Your task to perform on an android device: toggle improve location accuracy Image 0: 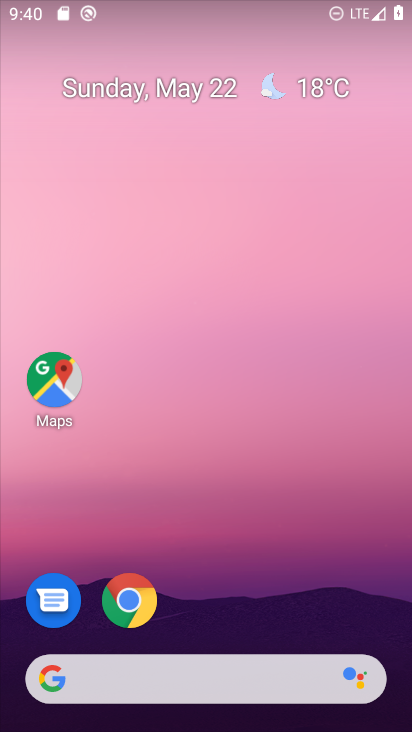
Step 0: drag from (360, 603) to (228, 39)
Your task to perform on an android device: toggle improve location accuracy Image 1: 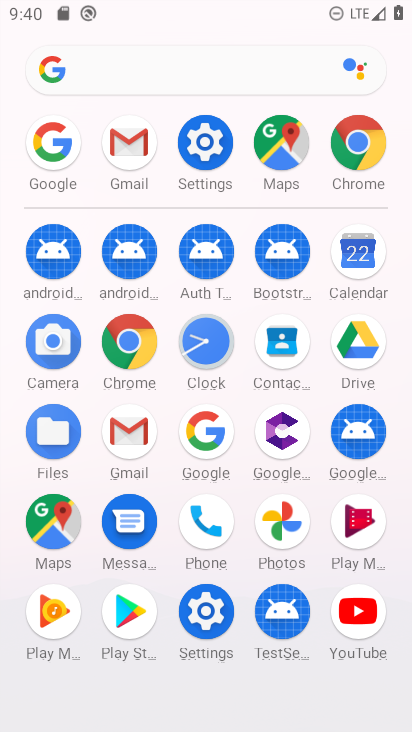
Step 1: click (205, 634)
Your task to perform on an android device: toggle improve location accuracy Image 2: 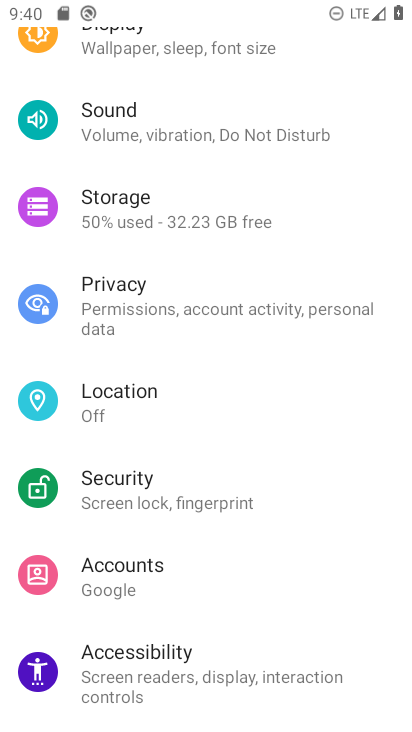
Step 2: click (183, 413)
Your task to perform on an android device: toggle improve location accuracy Image 3: 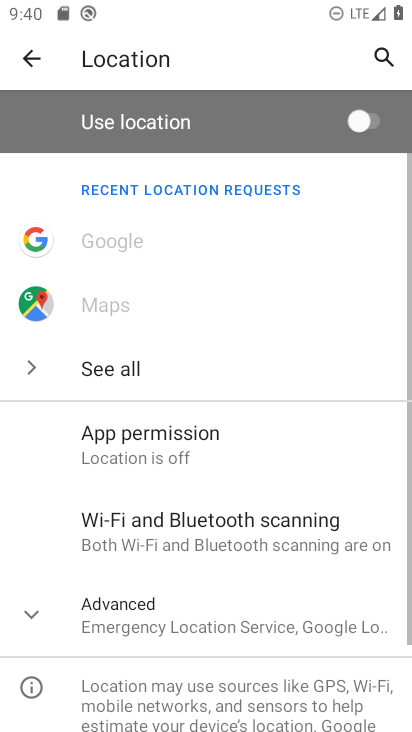
Step 3: click (153, 620)
Your task to perform on an android device: toggle improve location accuracy Image 4: 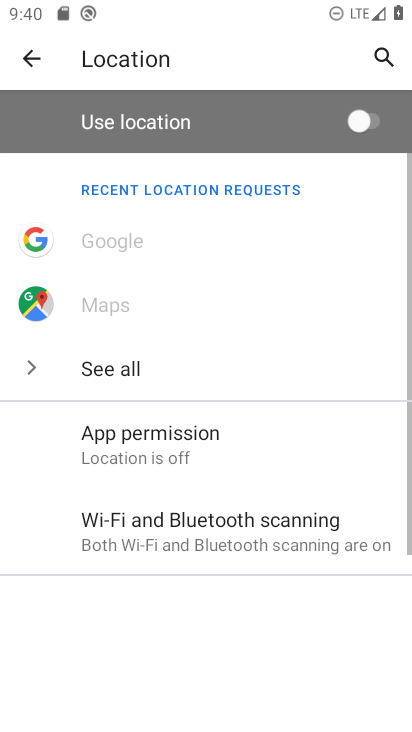
Step 4: drag from (153, 620) to (206, 302)
Your task to perform on an android device: toggle improve location accuracy Image 5: 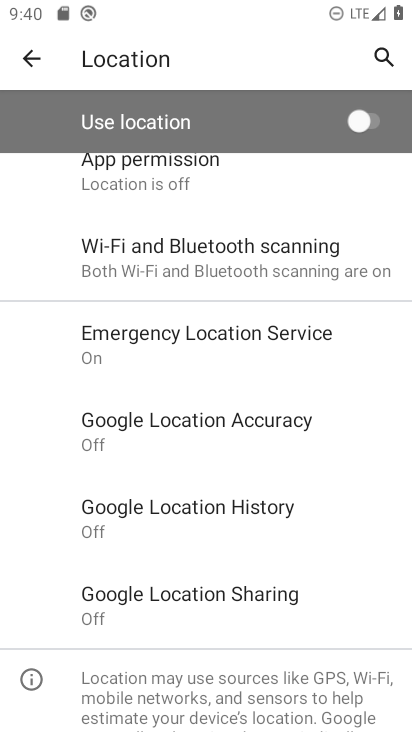
Step 5: click (273, 446)
Your task to perform on an android device: toggle improve location accuracy Image 6: 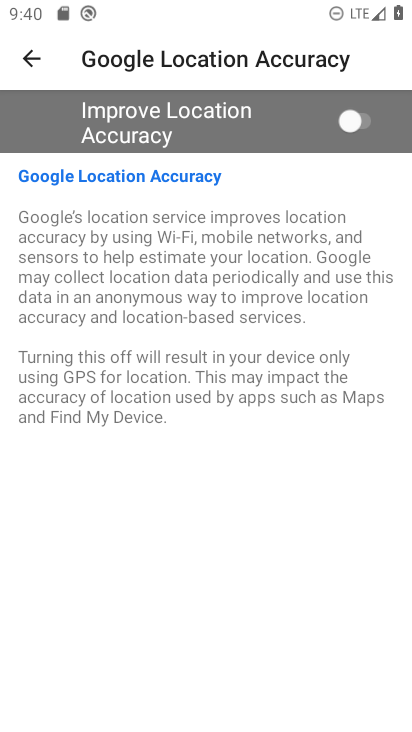
Step 6: click (348, 110)
Your task to perform on an android device: toggle improve location accuracy Image 7: 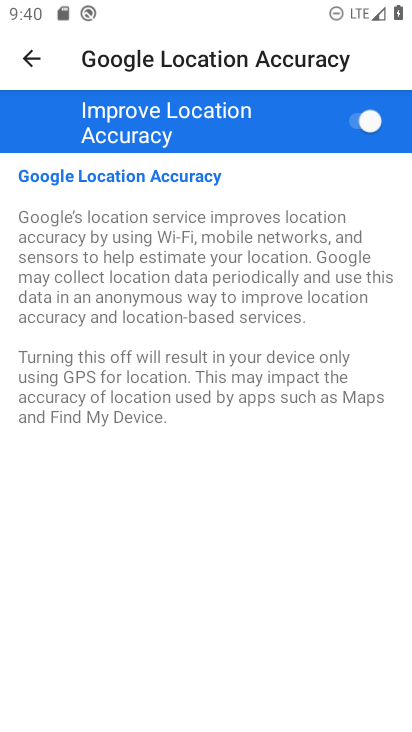
Step 7: task complete